Your task to perform on an android device: What is the recent news? Image 0: 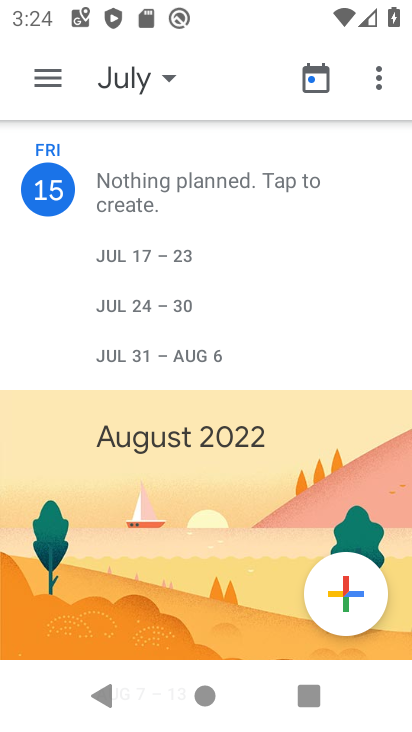
Step 0: drag from (147, 473) to (193, 164)
Your task to perform on an android device: What is the recent news? Image 1: 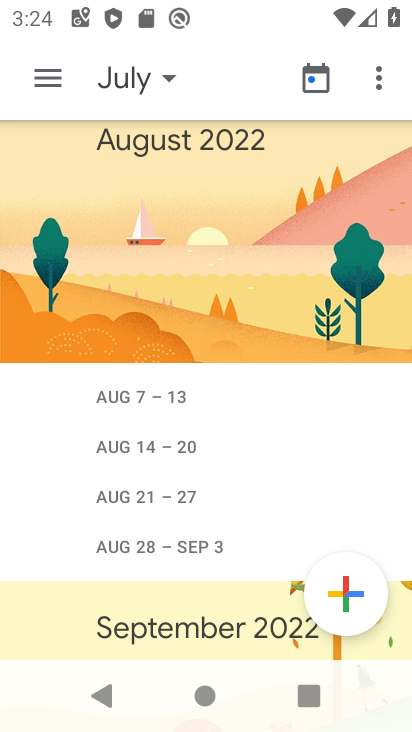
Step 1: press home button
Your task to perform on an android device: What is the recent news? Image 2: 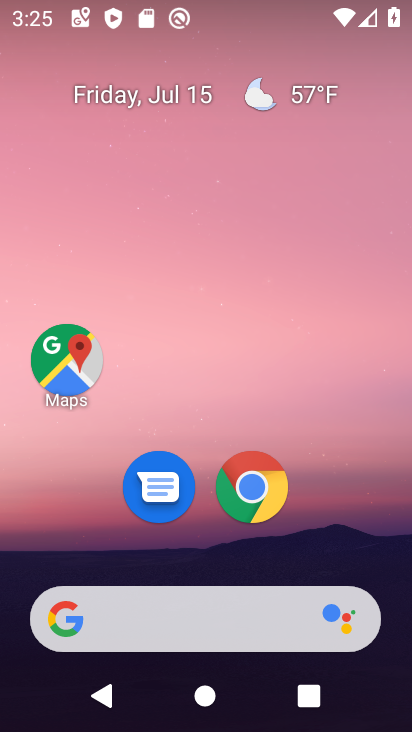
Step 2: drag from (214, 649) to (249, 82)
Your task to perform on an android device: What is the recent news? Image 3: 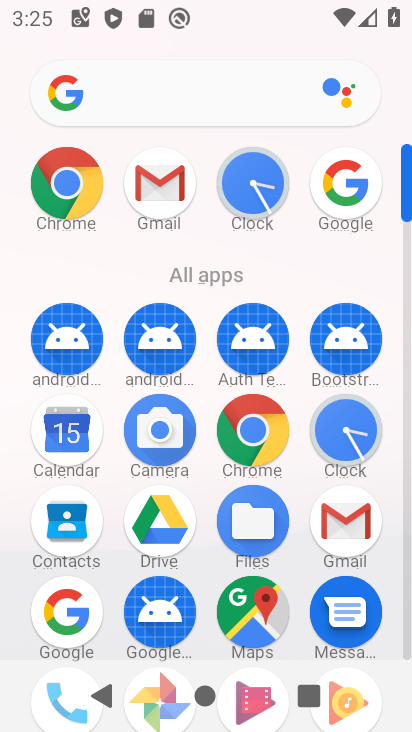
Step 3: click (81, 616)
Your task to perform on an android device: What is the recent news? Image 4: 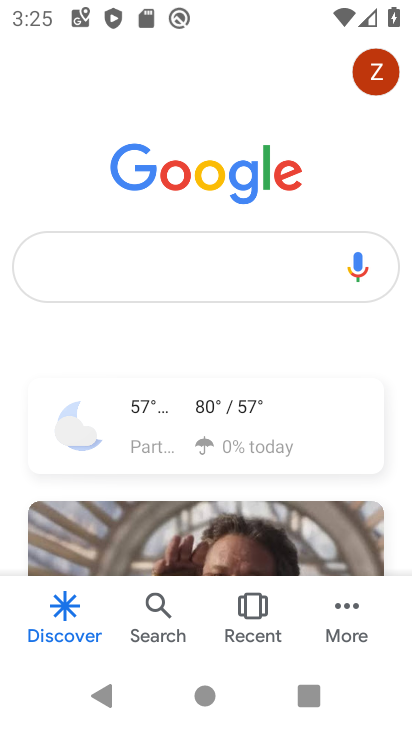
Step 4: click (96, 279)
Your task to perform on an android device: What is the recent news? Image 5: 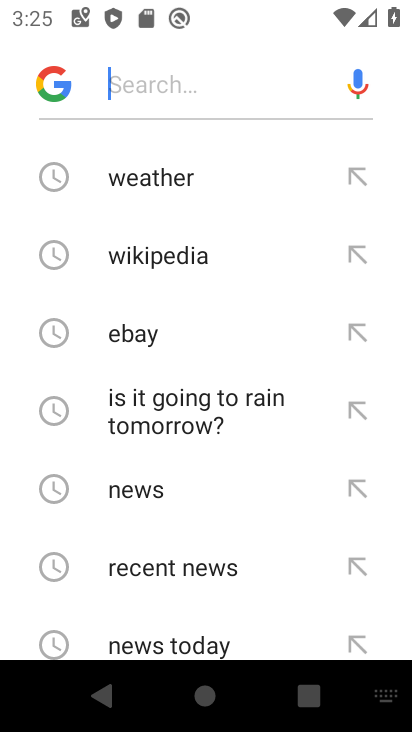
Step 5: click (206, 572)
Your task to perform on an android device: What is the recent news? Image 6: 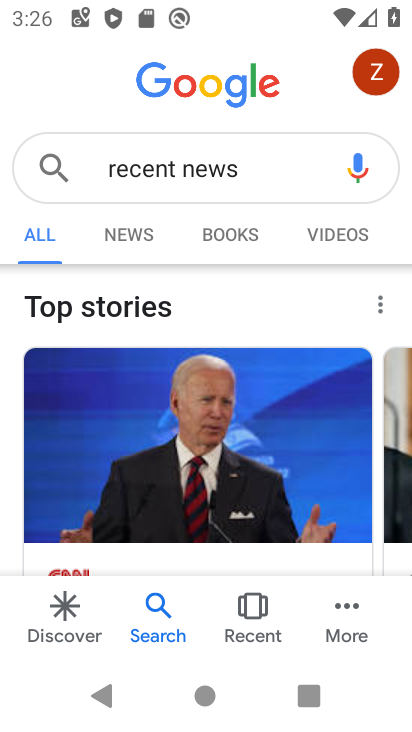
Step 6: click (138, 250)
Your task to perform on an android device: What is the recent news? Image 7: 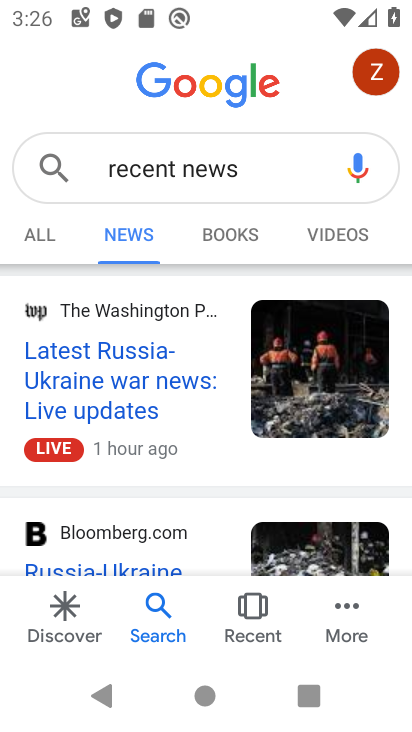
Step 7: task complete